Your task to perform on an android device: Open Amazon Image 0: 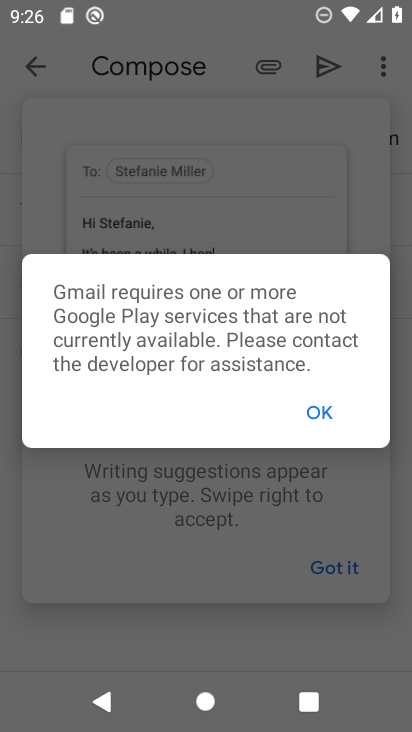
Step 0: press home button
Your task to perform on an android device: Open Amazon Image 1: 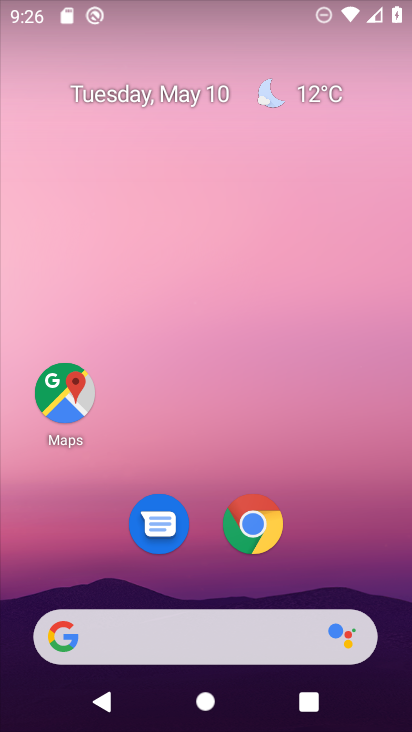
Step 1: click (256, 534)
Your task to perform on an android device: Open Amazon Image 2: 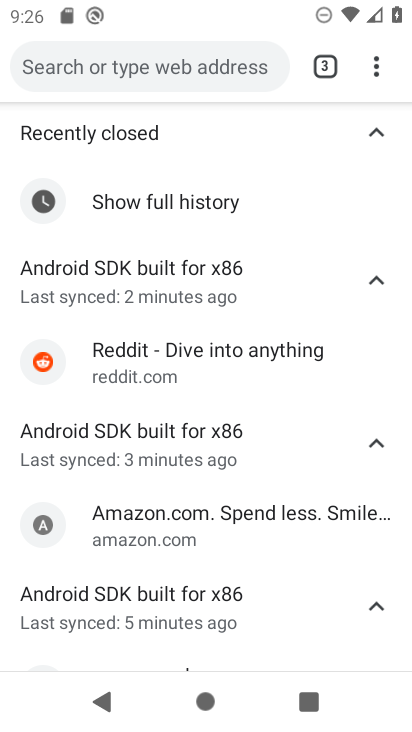
Step 2: click (372, 66)
Your task to perform on an android device: Open Amazon Image 3: 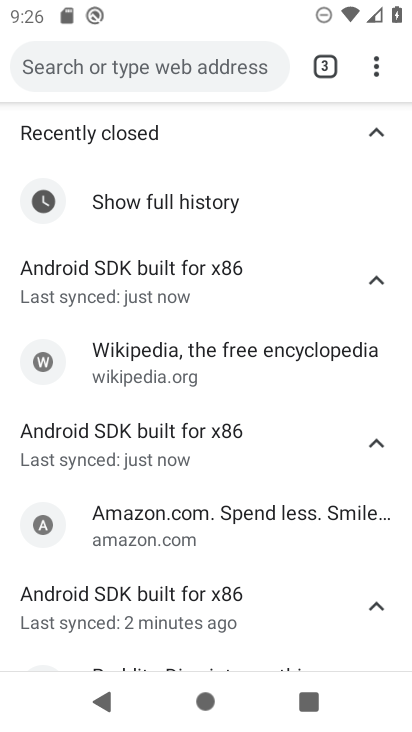
Step 3: click (372, 68)
Your task to perform on an android device: Open Amazon Image 4: 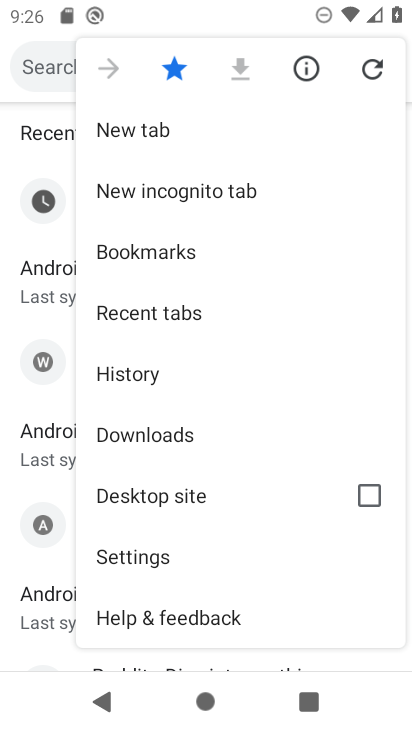
Step 4: click (295, 122)
Your task to perform on an android device: Open Amazon Image 5: 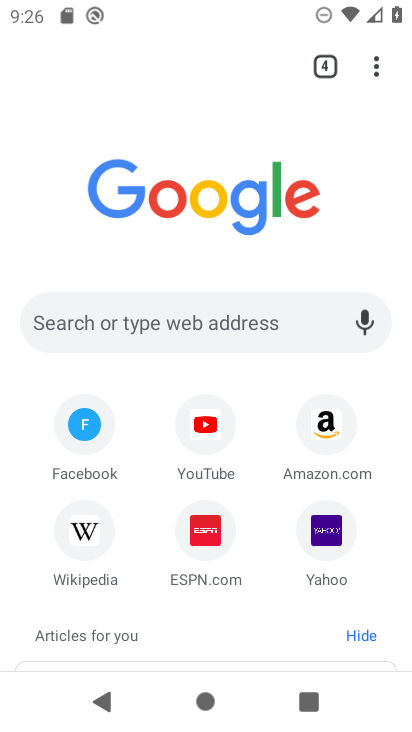
Step 5: click (327, 437)
Your task to perform on an android device: Open Amazon Image 6: 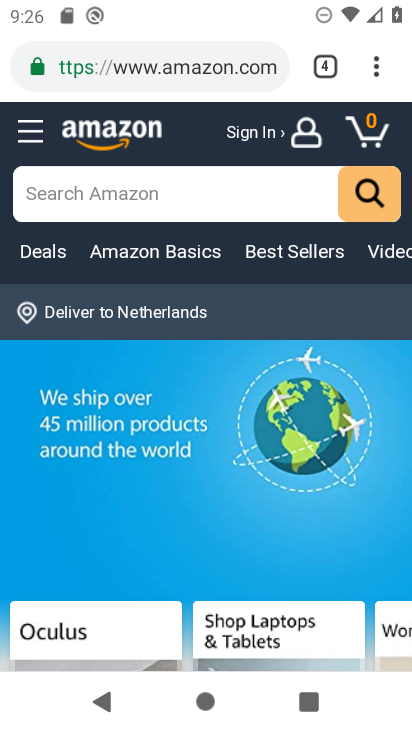
Step 6: task complete